Your task to perform on an android device: What's the weather going to be tomorrow? Image 0: 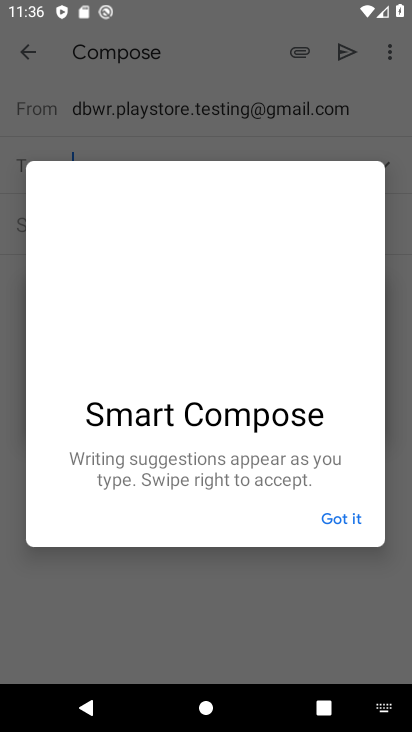
Step 0: press home button
Your task to perform on an android device: What's the weather going to be tomorrow? Image 1: 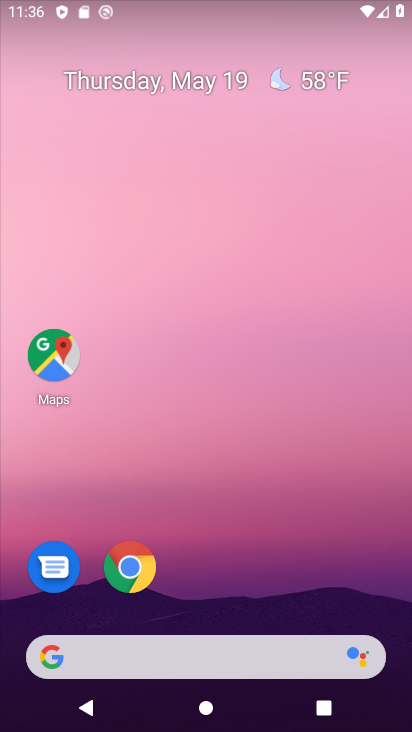
Step 1: click (311, 67)
Your task to perform on an android device: What's the weather going to be tomorrow? Image 2: 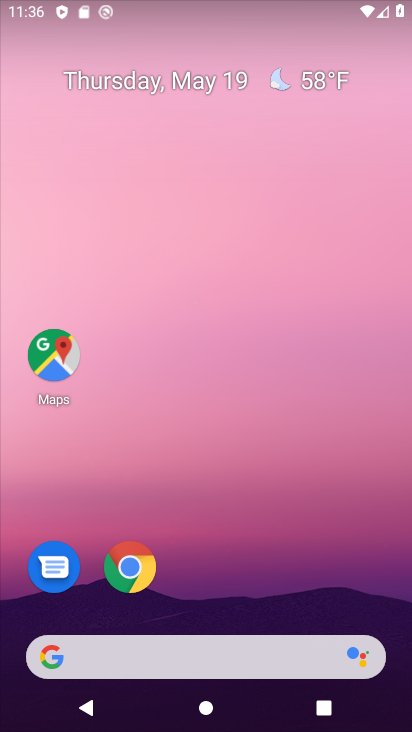
Step 2: click (321, 76)
Your task to perform on an android device: What's the weather going to be tomorrow? Image 3: 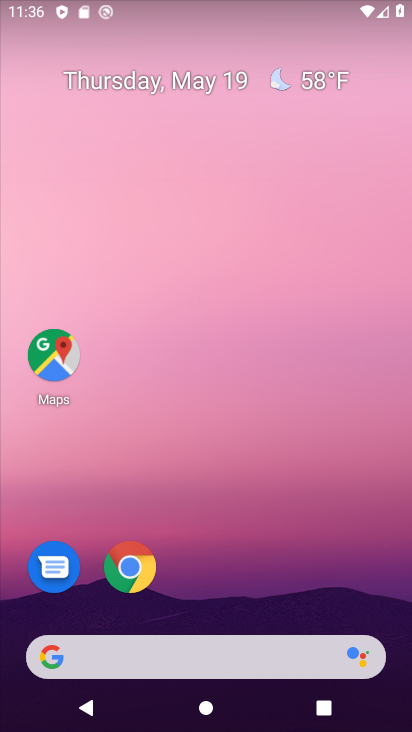
Step 3: click (278, 69)
Your task to perform on an android device: What's the weather going to be tomorrow? Image 4: 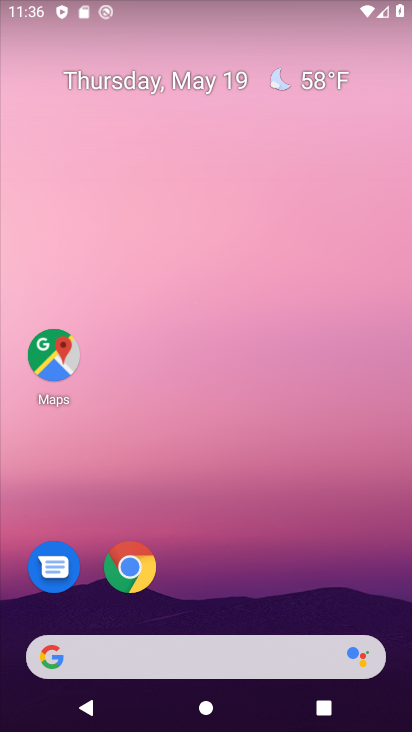
Step 4: click (333, 87)
Your task to perform on an android device: What's the weather going to be tomorrow? Image 5: 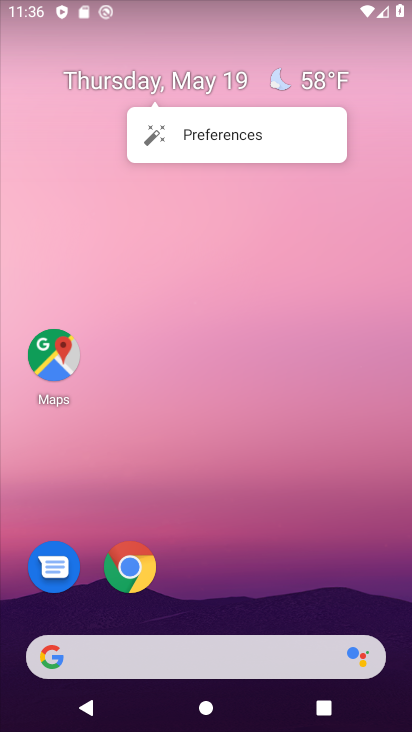
Step 5: click (333, 86)
Your task to perform on an android device: What's the weather going to be tomorrow? Image 6: 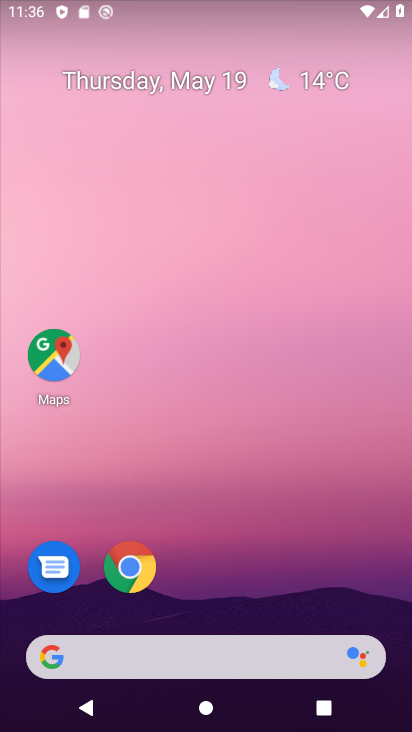
Step 6: click (332, 81)
Your task to perform on an android device: What's the weather going to be tomorrow? Image 7: 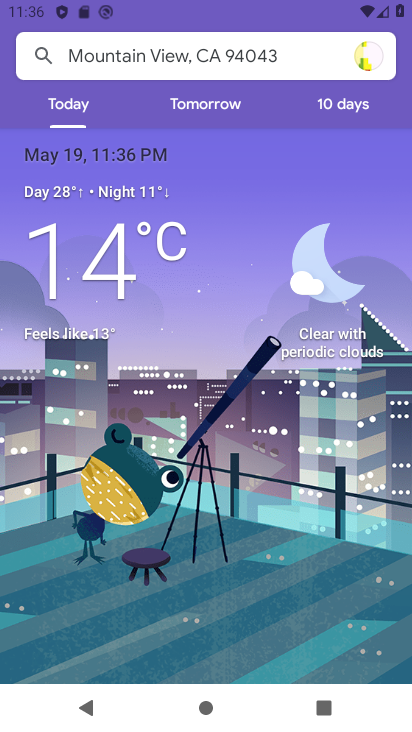
Step 7: click (192, 100)
Your task to perform on an android device: What's the weather going to be tomorrow? Image 8: 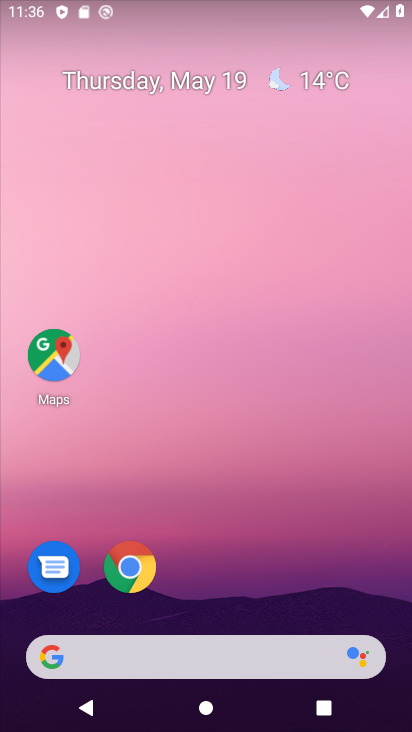
Step 8: task complete